Your task to perform on an android device: Open Google Chrome and click the shortcut for Amazon.com Image 0: 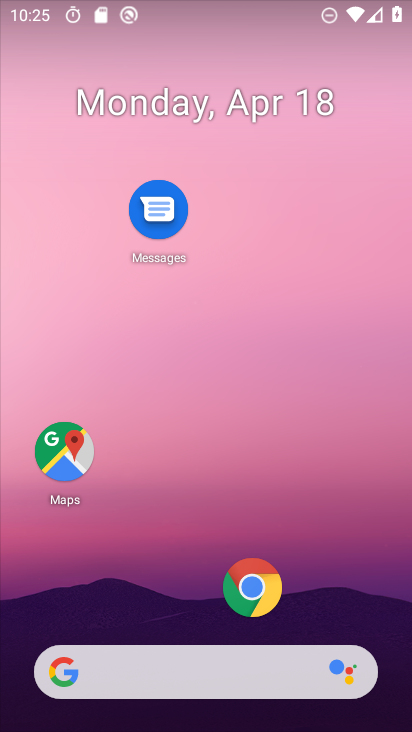
Step 0: drag from (155, 529) to (278, 11)
Your task to perform on an android device: Open Google Chrome and click the shortcut for Amazon.com Image 1: 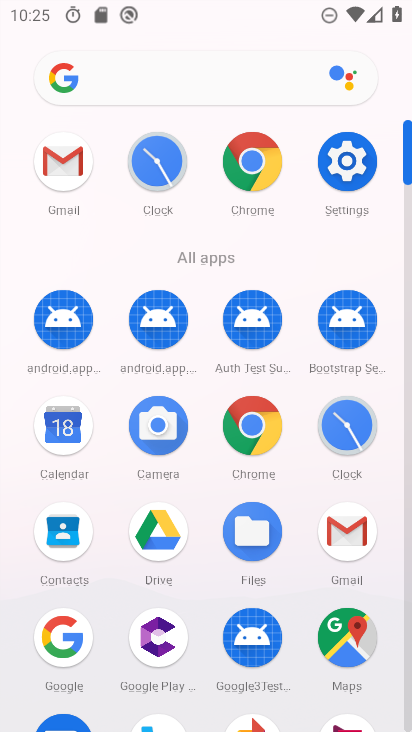
Step 1: click (261, 440)
Your task to perform on an android device: Open Google Chrome and click the shortcut for Amazon.com Image 2: 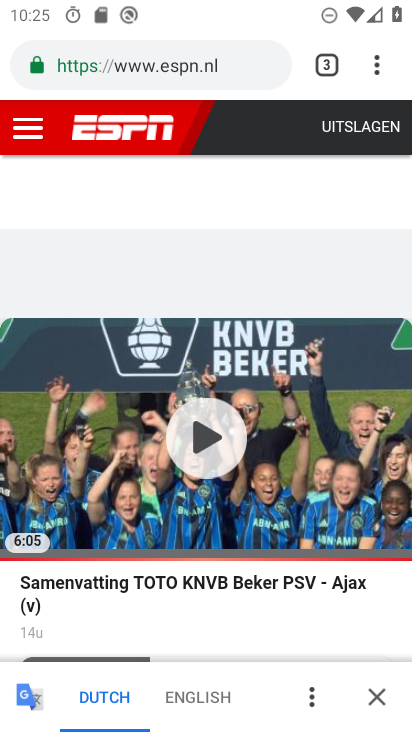
Step 2: click (327, 54)
Your task to perform on an android device: Open Google Chrome and click the shortcut for Amazon.com Image 3: 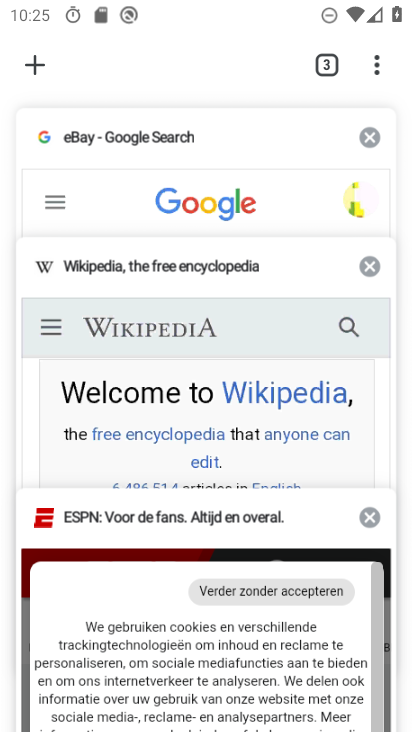
Step 3: click (36, 62)
Your task to perform on an android device: Open Google Chrome and click the shortcut for Amazon.com Image 4: 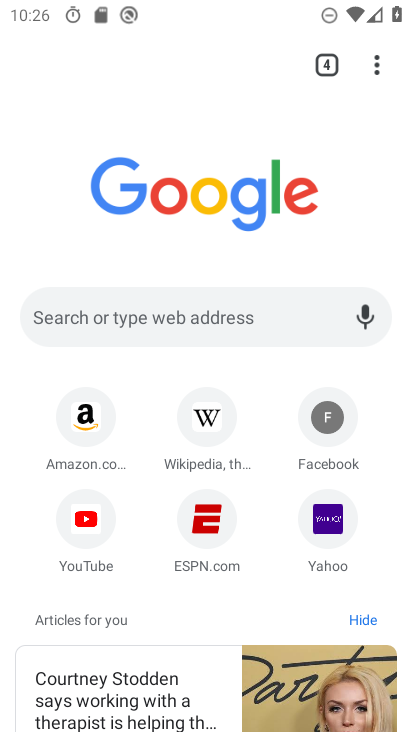
Step 4: click (84, 422)
Your task to perform on an android device: Open Google Chrome and click the shortcut for Amazon.com Image 5: 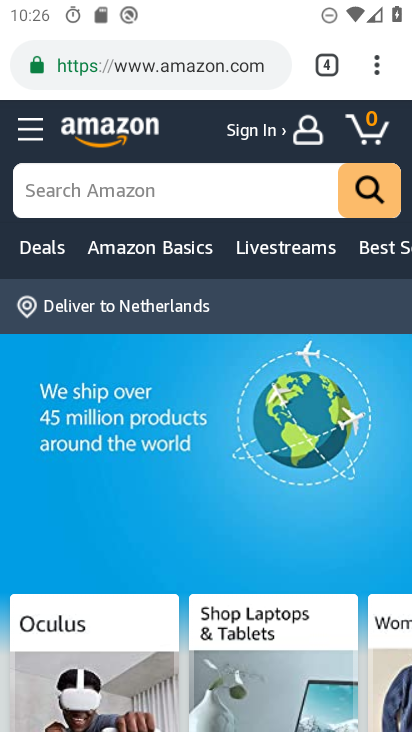
Step 5: task complete